Your task to perform on an android device: Search for seafood restaurants on Google Maps Image 0: 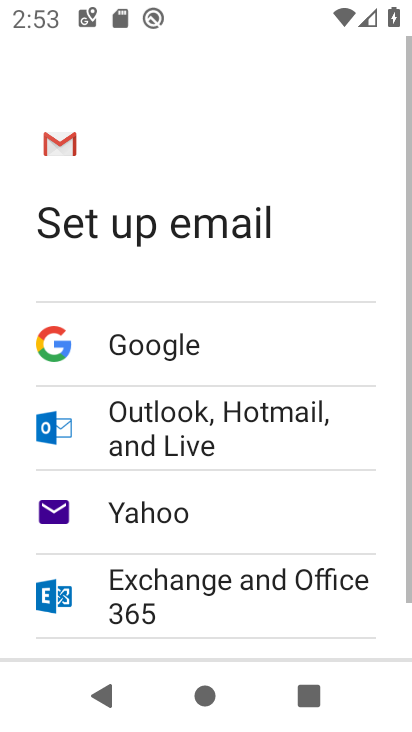
Step 0: press home button
Your task to perform on an android device: Search for seafood restaurants on Google Maps Image 1: 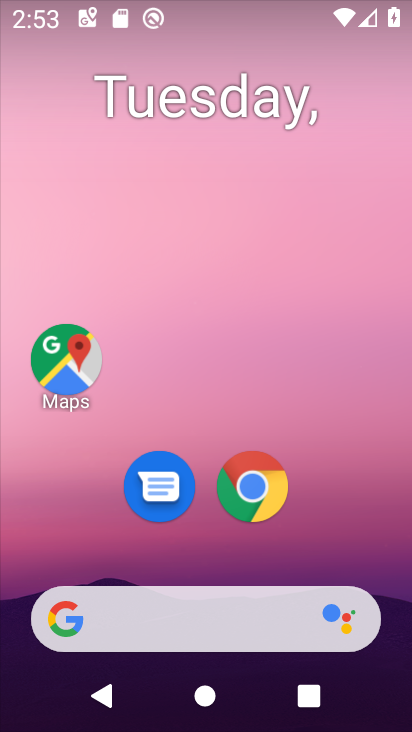
Step 1: click (64, 357)
Your task to perform on an android device: Search for seafood restaurants on Google Maps Image 2: 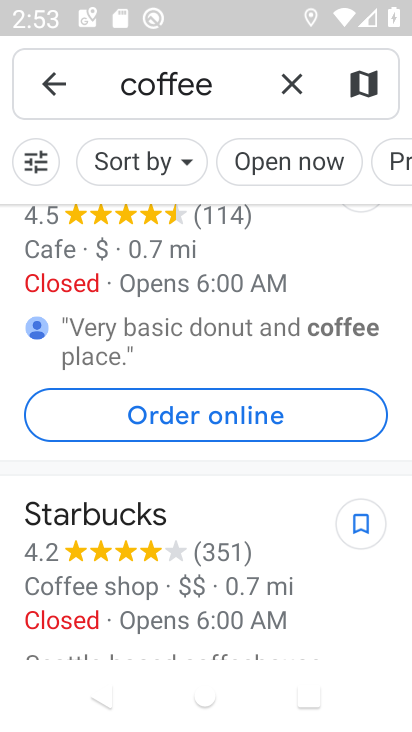
Step 2: click (285, 83)
Your task to perform on an android device: Search for seafood restaurants on Google Maps Image 3: 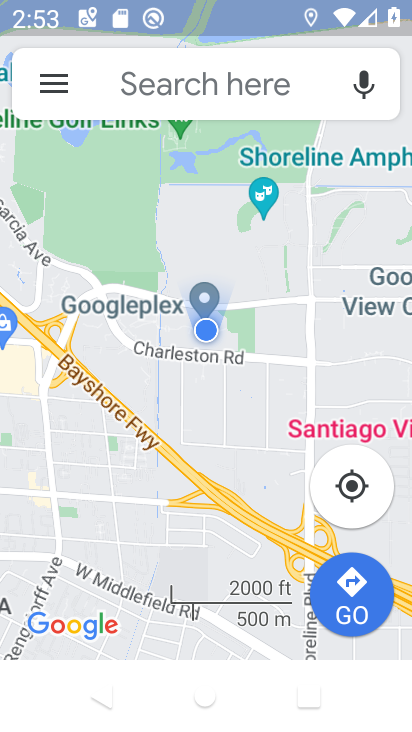
Step 3: click (123, 91)
Your task to perform on an android device: Search for seafood restaurants on Google Maps Image 4: 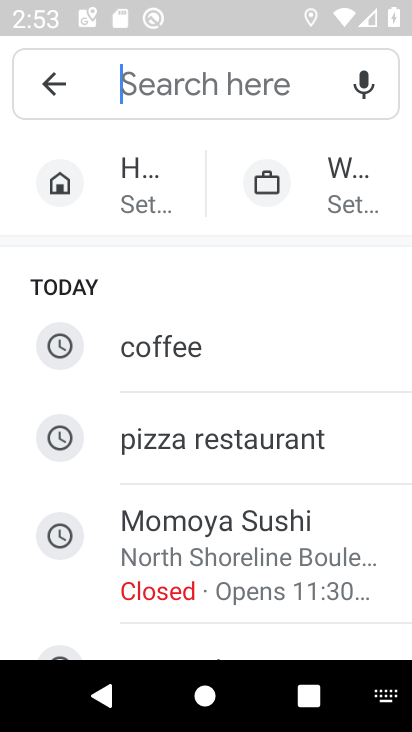
Step 4: drag from (249, 549) to (278, 48)
Your task to perform on an android device: Search for seafood restaurants on Google Maps Image 5: 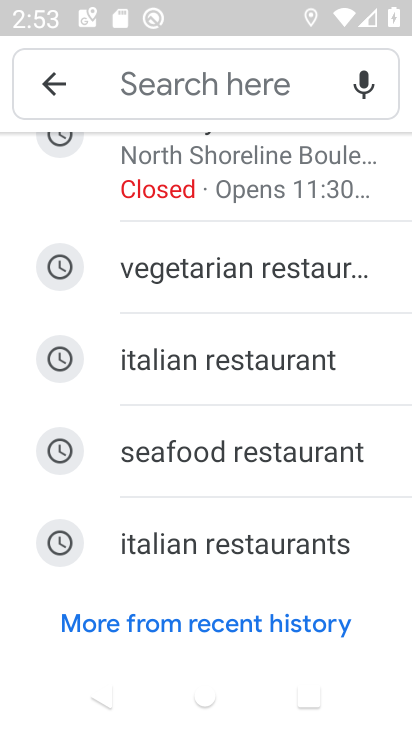
Step 5: click (198, 455)
Your task to perform on an android device: Search for seafood restaurants on Google Maps Image 6: 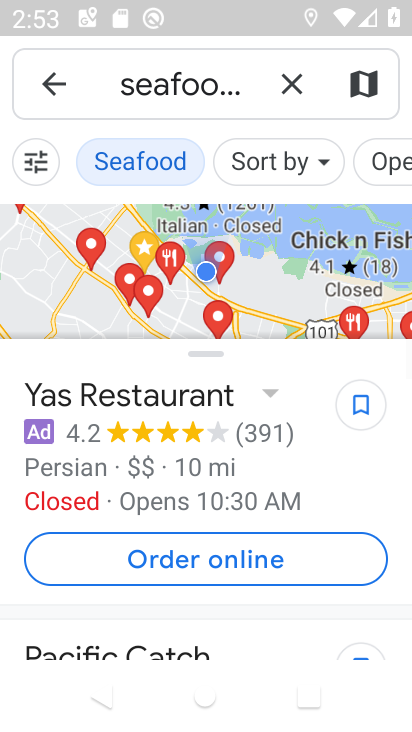
Step 6: task complete